Your task to perform on an android device: Clear all items from cart on ebay. Add "beats solo 3" to the cart on ebay Image 0: 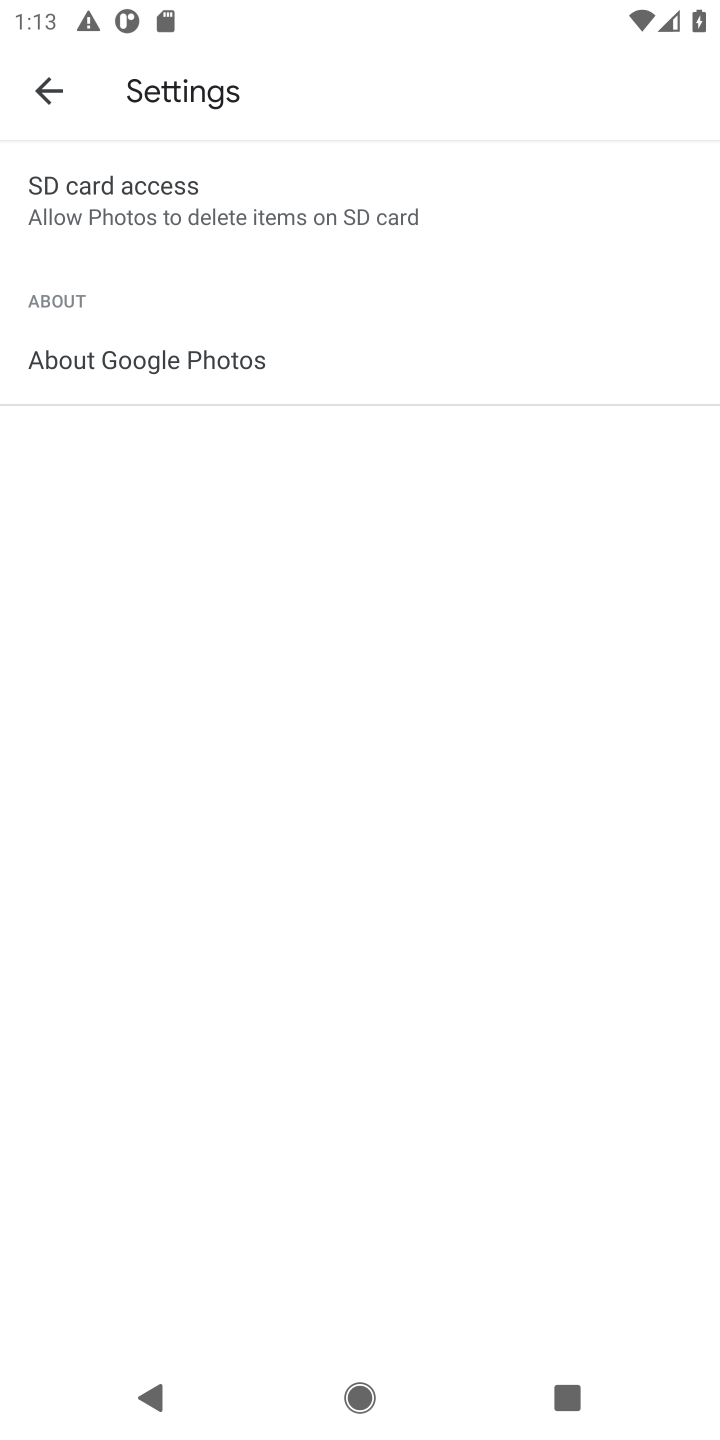
Step 0: press home button
Your task to perform on an android device: Clear all items from cart on ebay. Add "beats solo 3" to the cart on ebay Image 1: 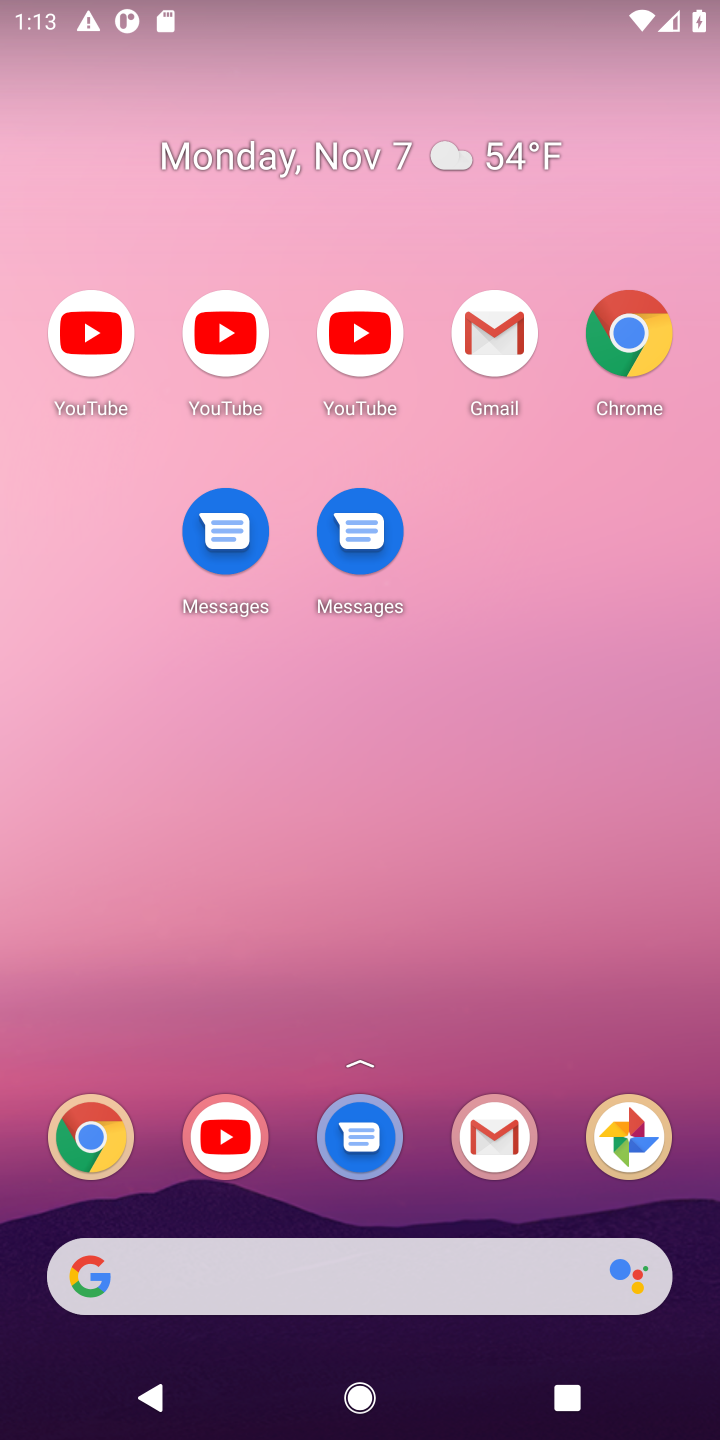
Step 1: drag from (424, 1210) to (474, 93)
Your task to perform on an android device: Clear all items from cart on ebay. Add "beats solo 3" to the cart on ebay Image 2: 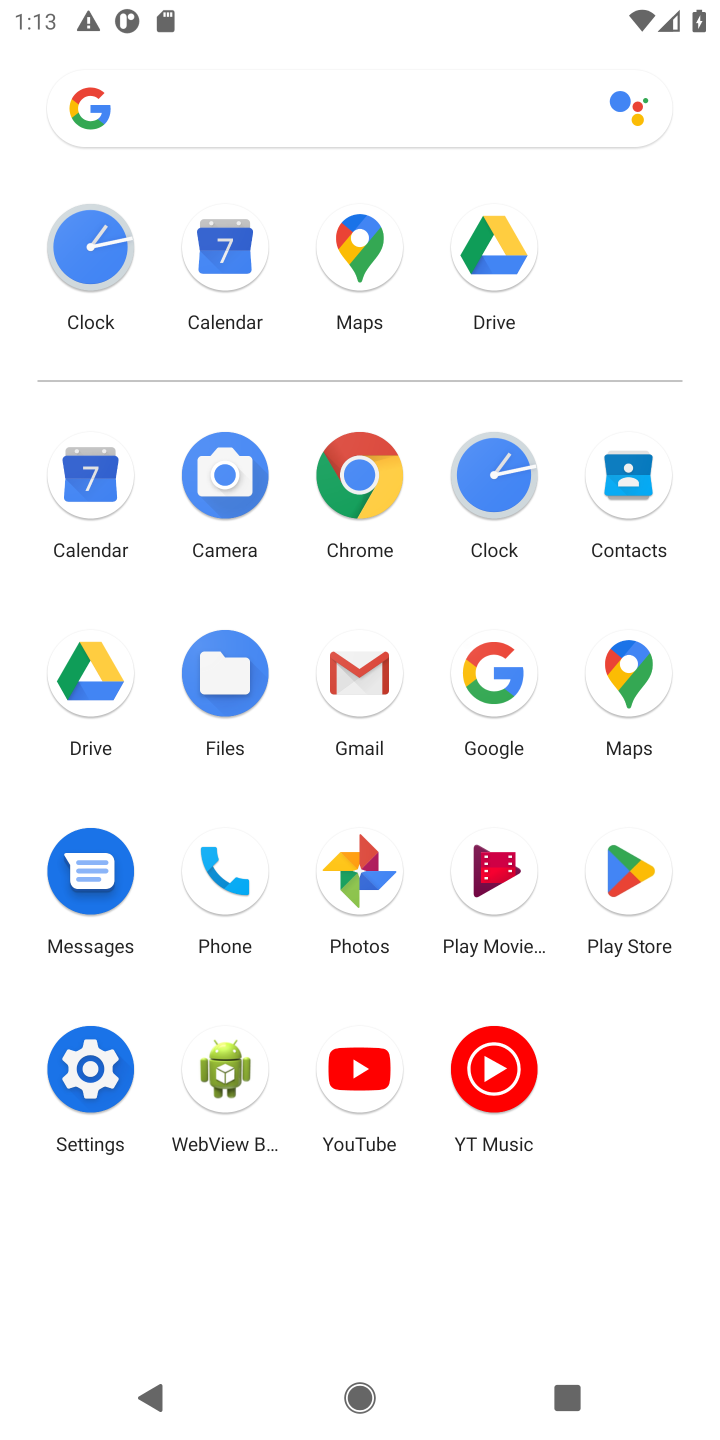
Step 2: click (368, 473)
Your task to perform on an android device: Clear all items from cart on ebay. Add "beats solo 3" to the cart on ebay Image 3: 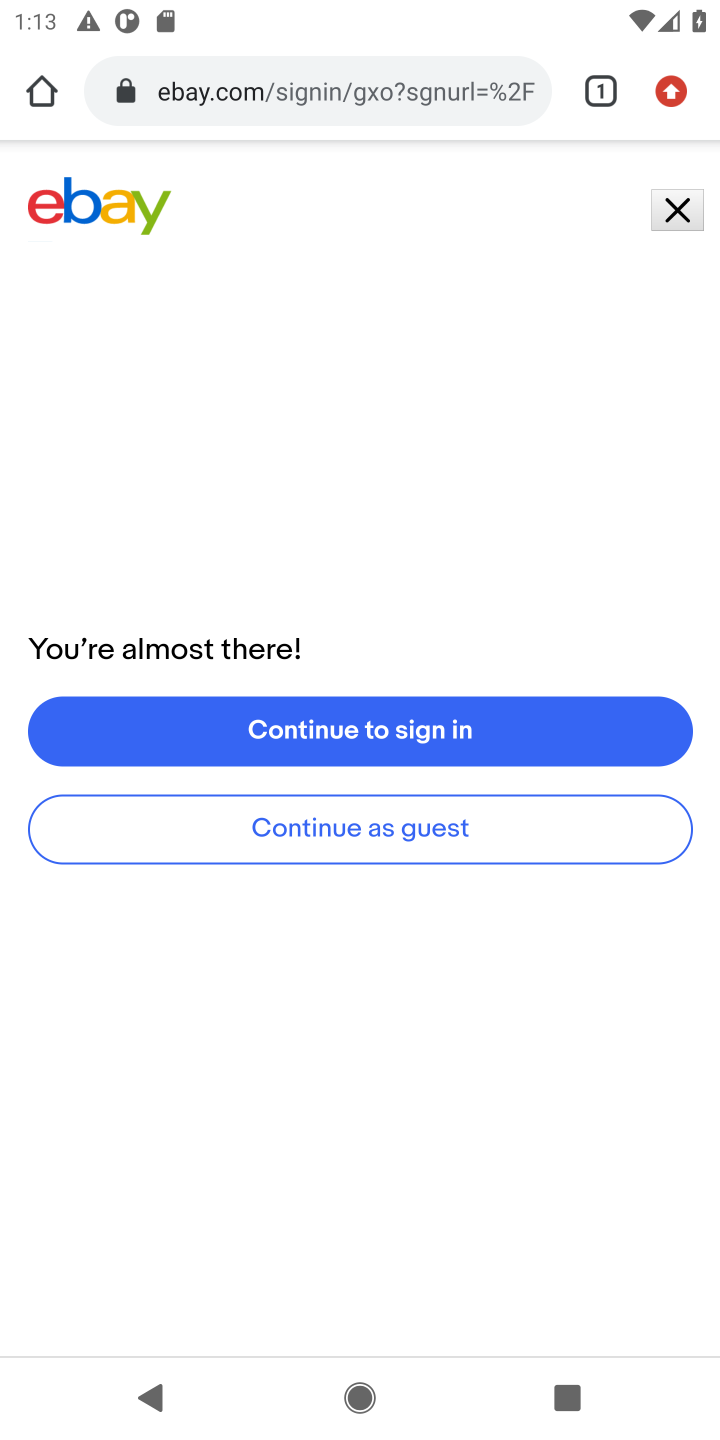
Step 3: click (356, 92)
Your task to perform on an android device: Clear all items from cart on ebay. Add "beats solo 3" to the cart on ebay Image 4: 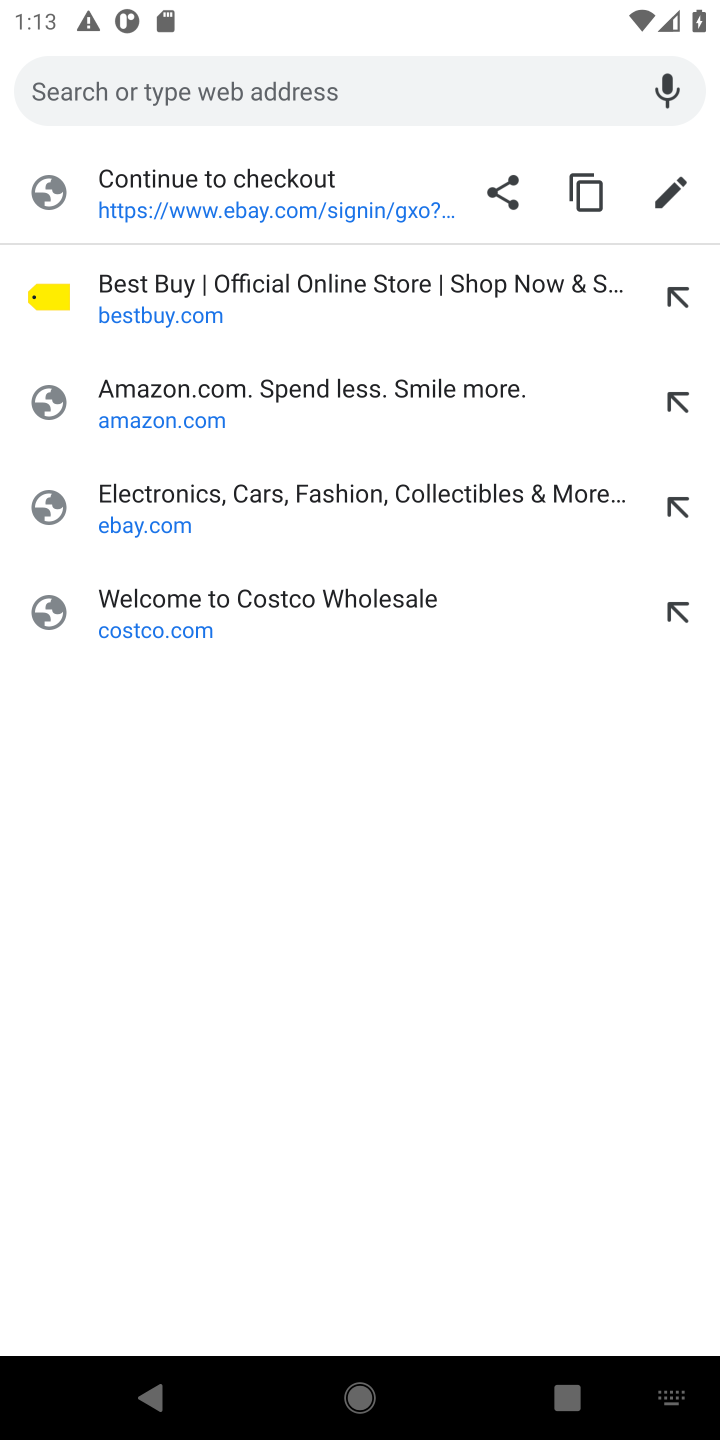
Step 4: type "ebay.com"
Your task to perform on an android device: Clear all items from cart on ebay. Add "beats solo 3" to the cart on ebay Image 5: 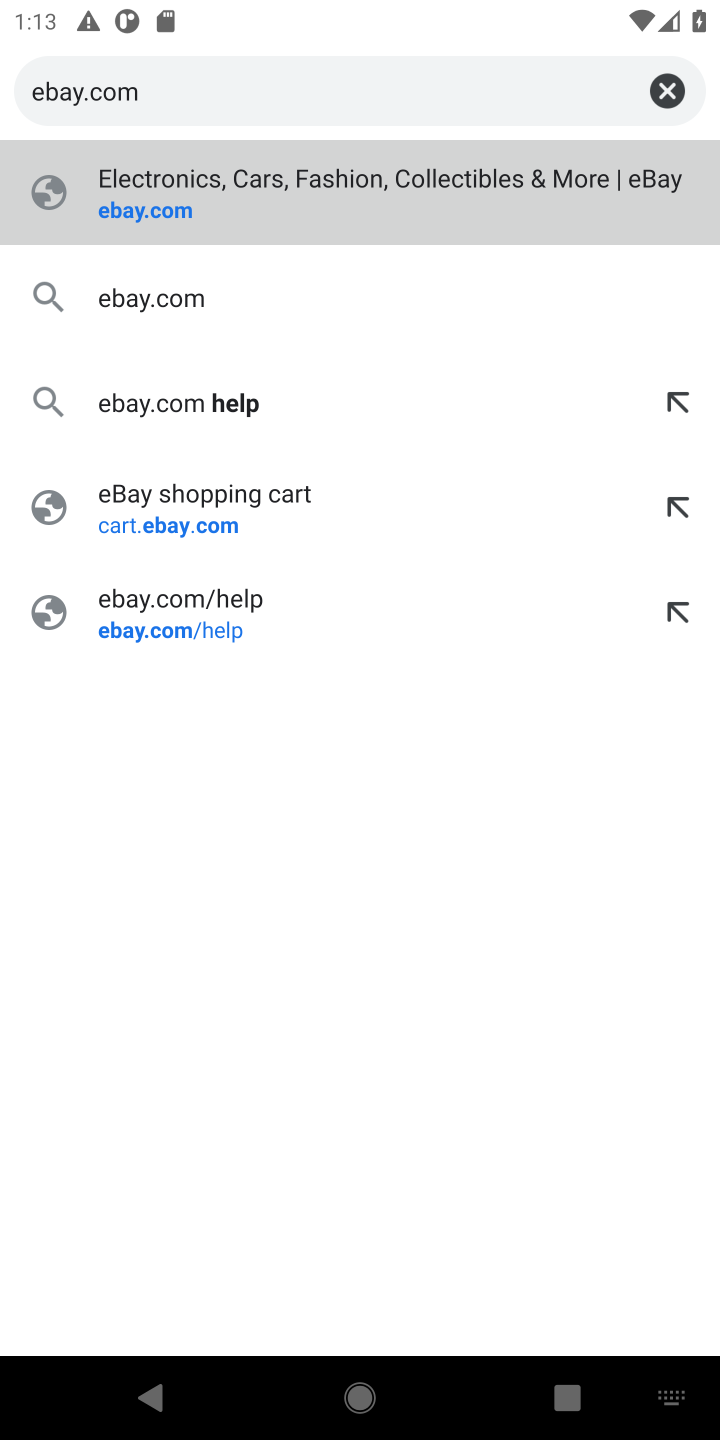
Step 5: press enter
Your task to perform on an android device: Clear all items from cart on ebay. Add "beats solo 3" to the cart on ebay Image 6: 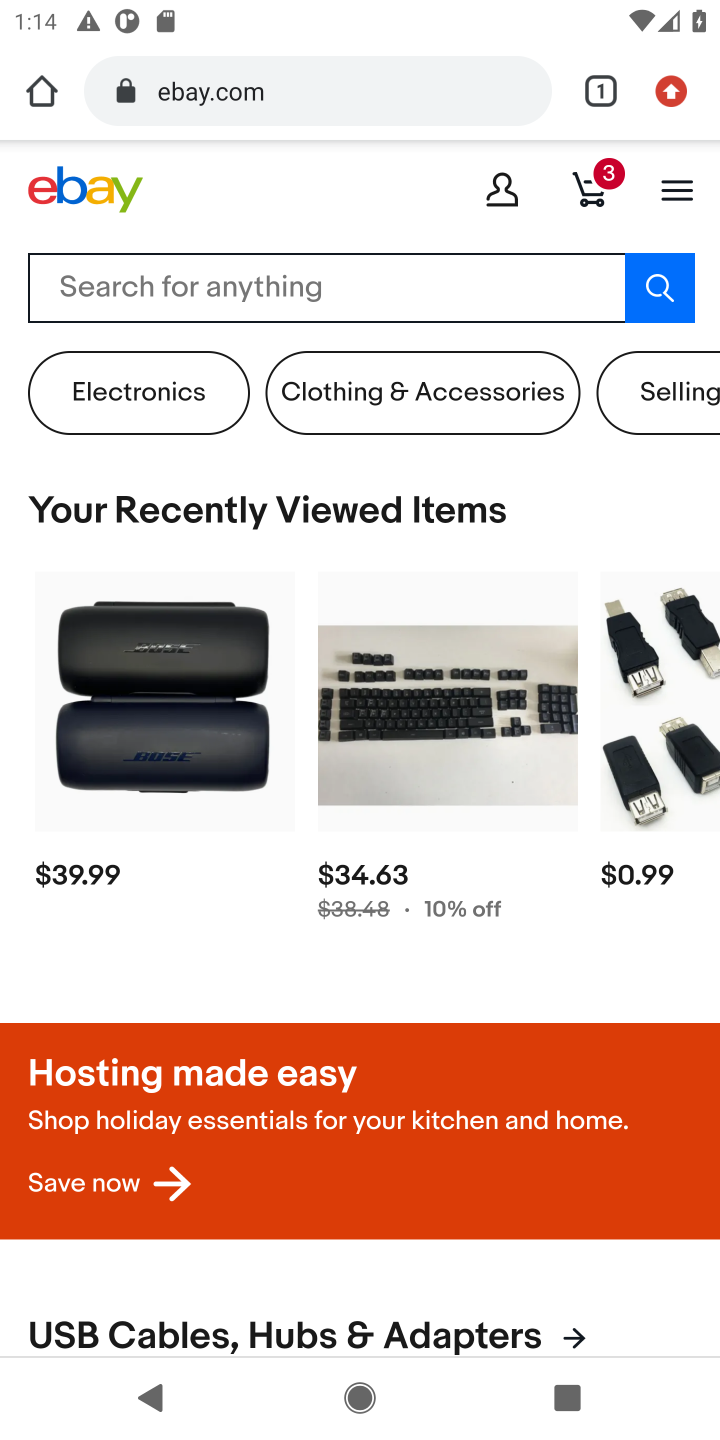
Step 6: click (583, 189)
Your task to perform on an android device: Clear all items from cart on ebay. Add "beats solo 3" to the cart on ebay Image 7: 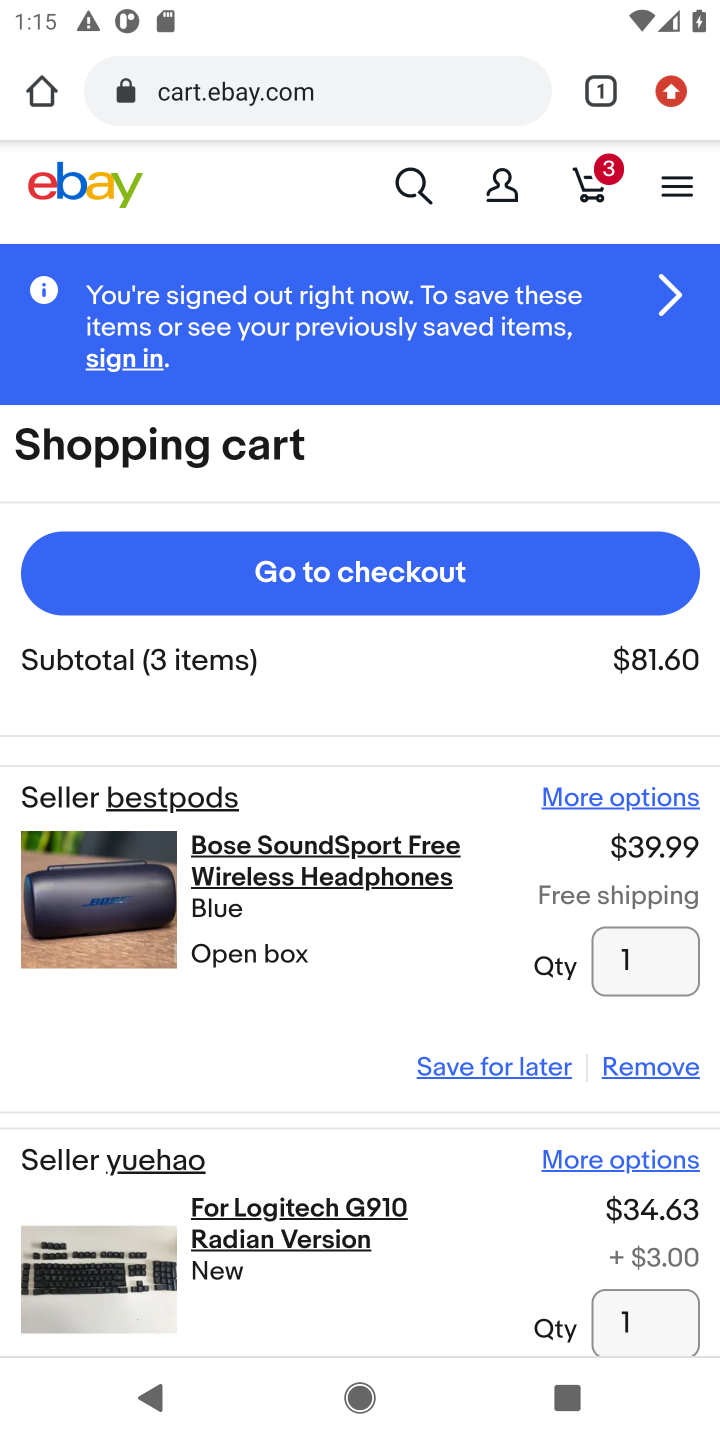
Step 7: click (636, 1061)
Your task to perform on an android device: Clear all items from cart on ebay. Add "beats solo 3" to the cart on ebay Image 8: 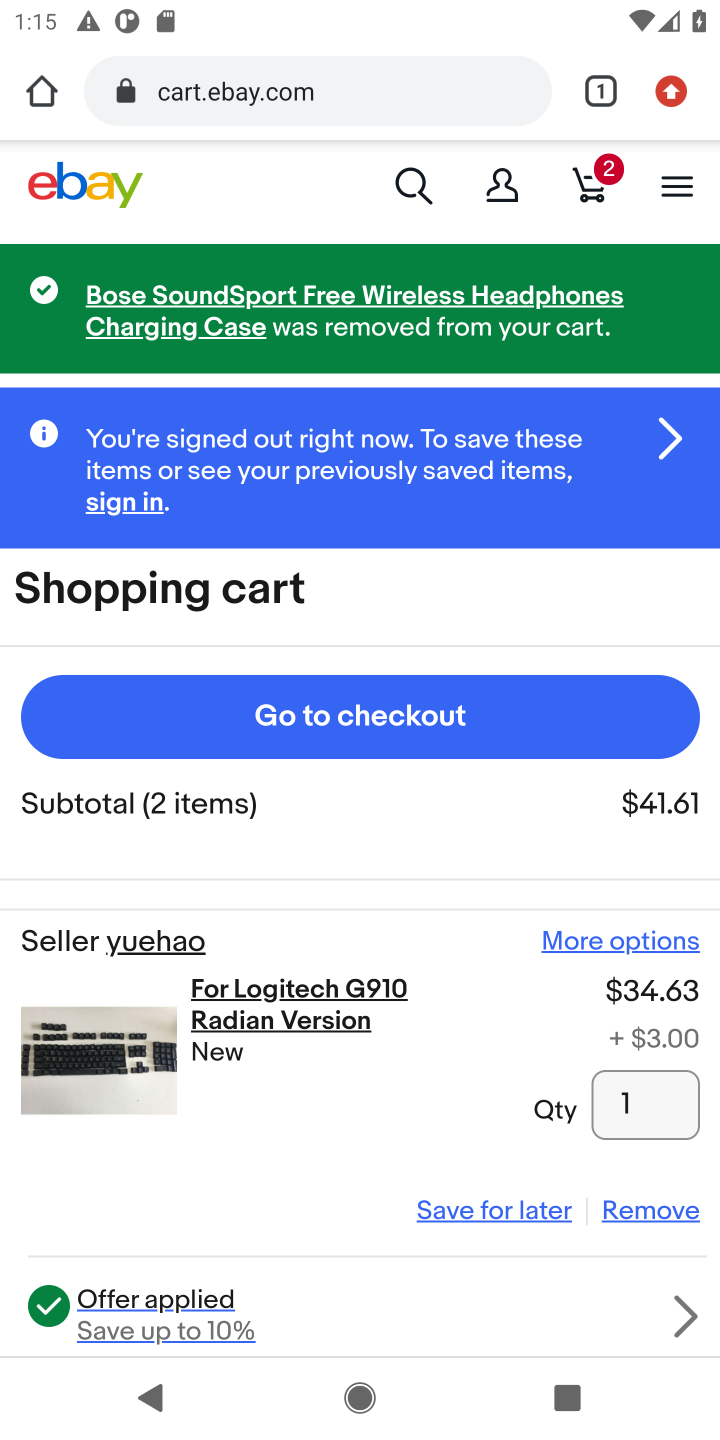
Step 8: click (660, 1200)
Your task to perform on an android device: Clear all items from cart on ebay. Add "beats solo 3" to the cart on ebay Image 9: 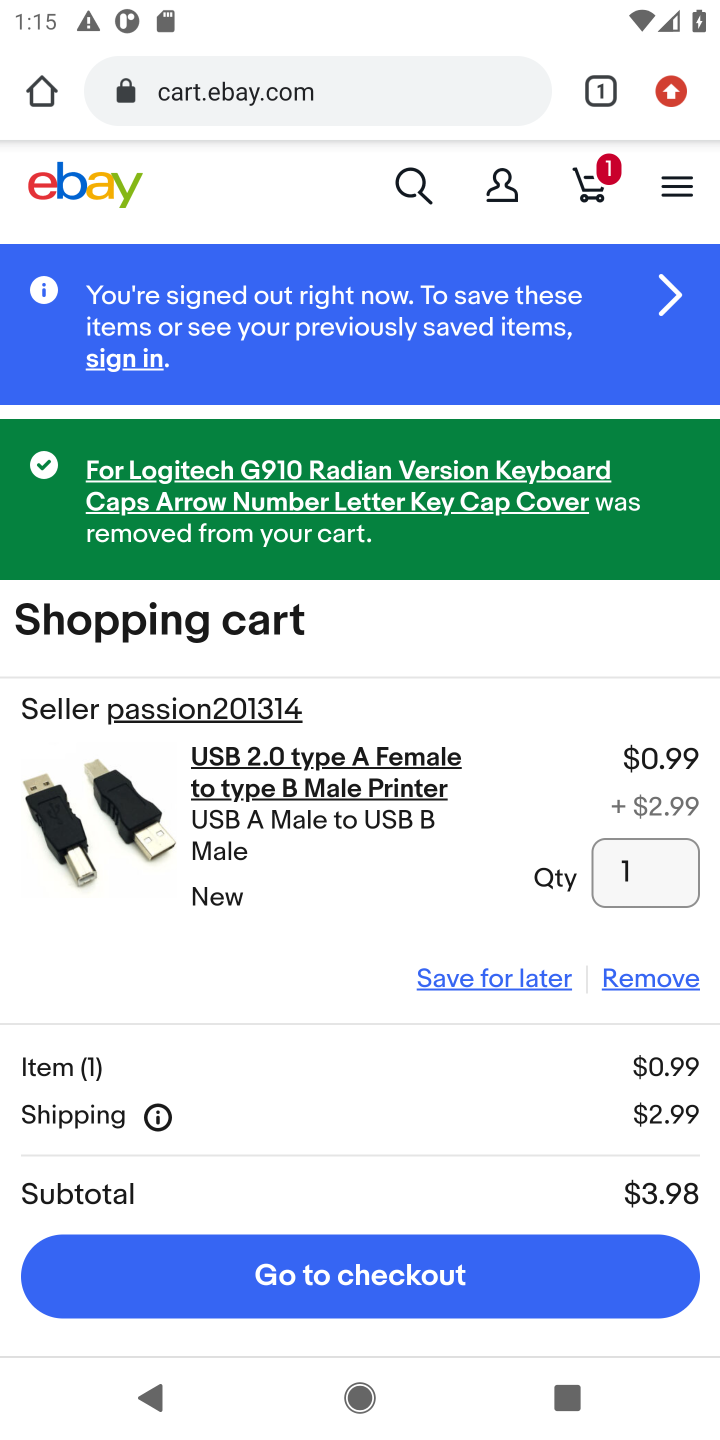
Step 9: click (623, 983)
Your task to perform on an android device: Clear all items from cart on ebay. Add "beats solo 3" to the cart on ebay Image 10: 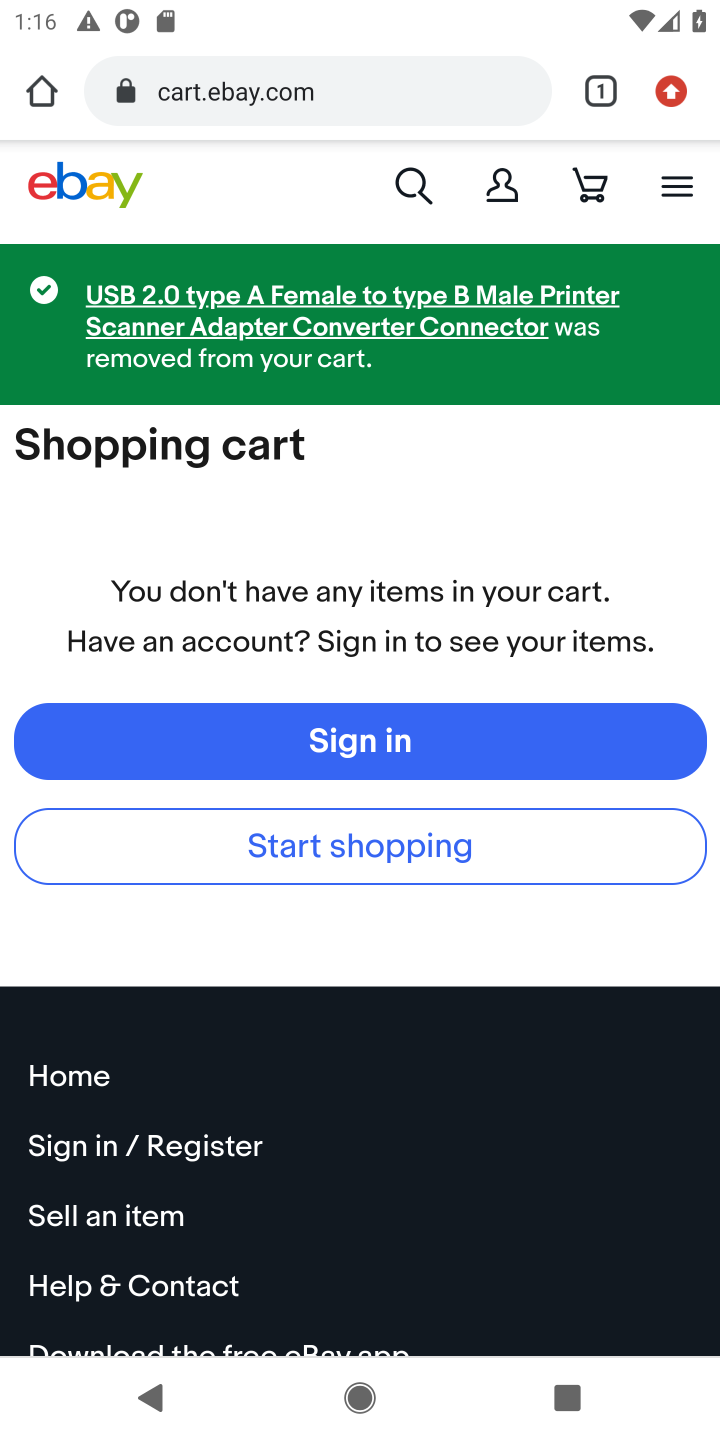
Step 10: click (403, 184)
Your task to perform on an android device: Clear all items from cart on ebay. Add "beats solo 3" to the cart on ebay Image 11: 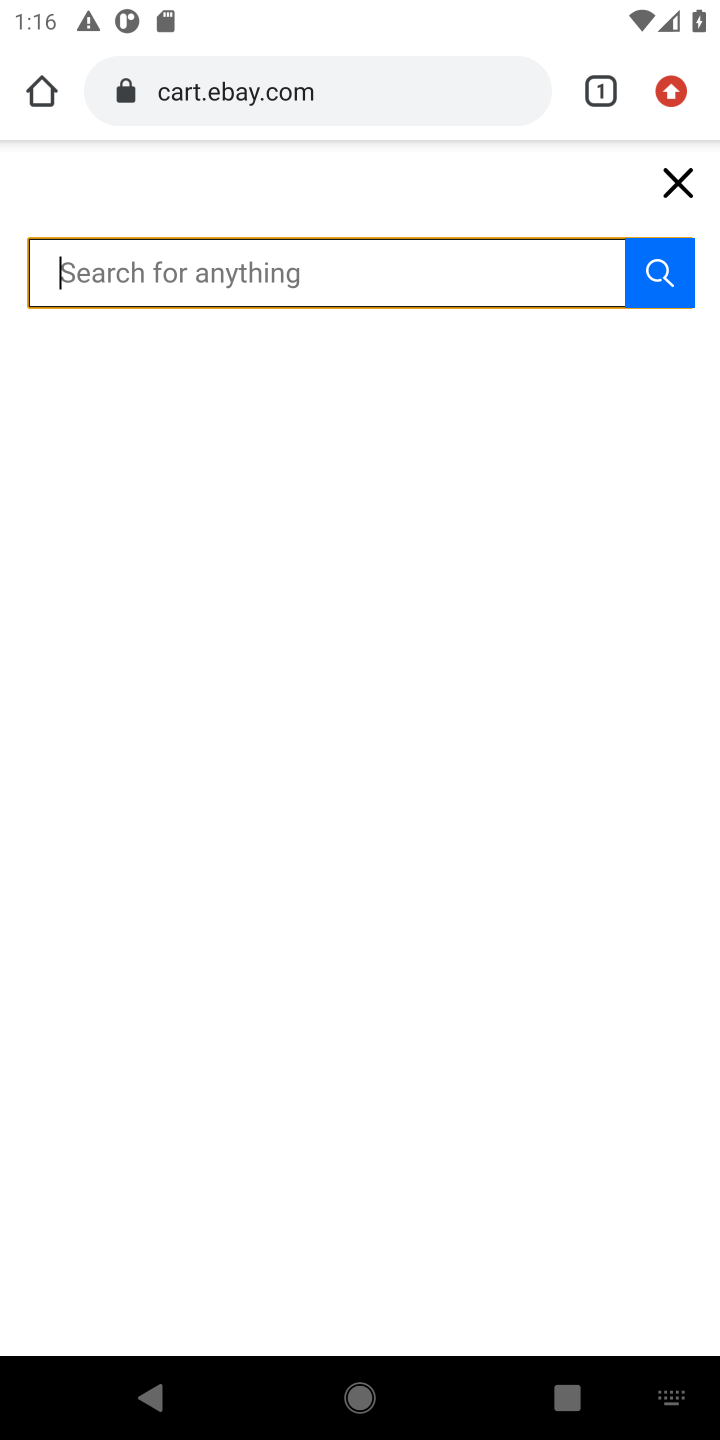
Step 11: type "beats solo 3"
Your task to perform on an android device: Clear all items from cart on ebay. Add "beats solo 3" to the cart on ebay Image 12: 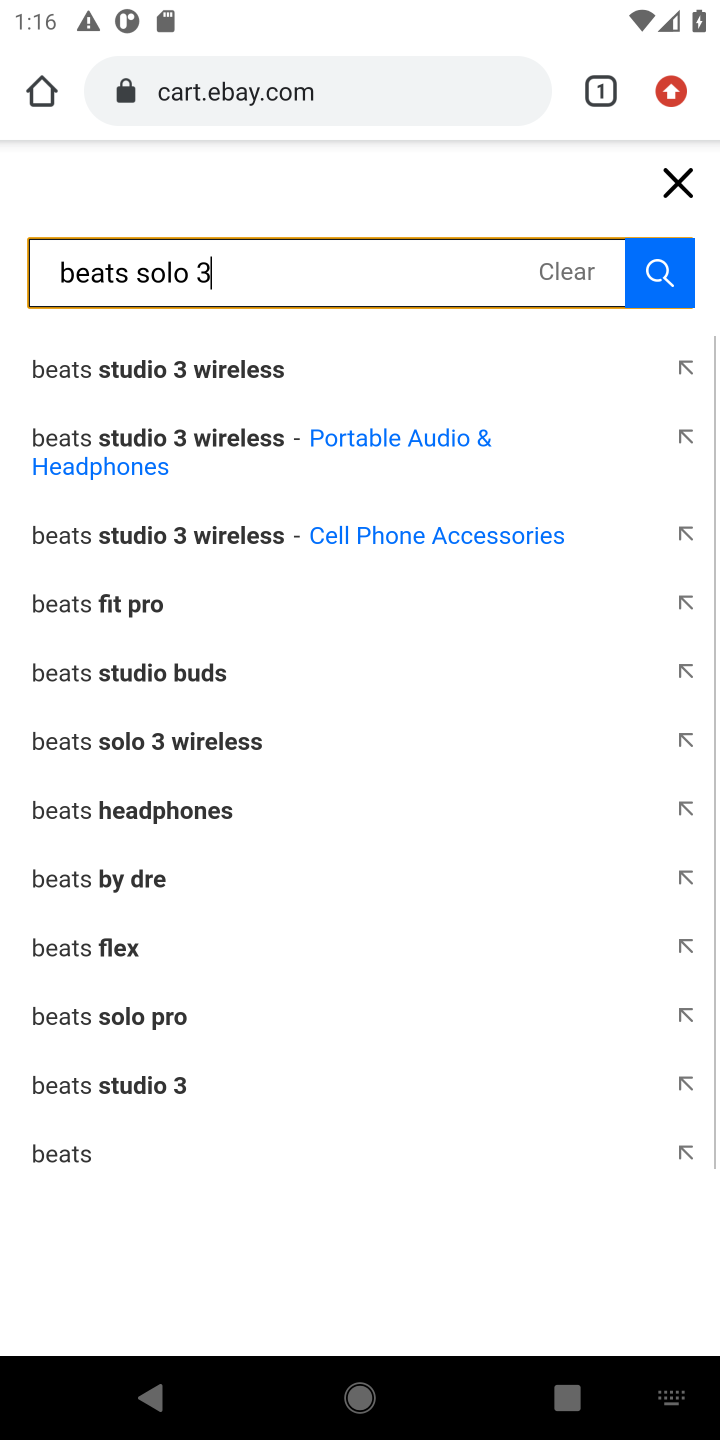
Step 12: press enter
Your task to perform on an android device: Clear all items from cart on ebay. Add "beats solo 3" to the cart on ebay Image 13: 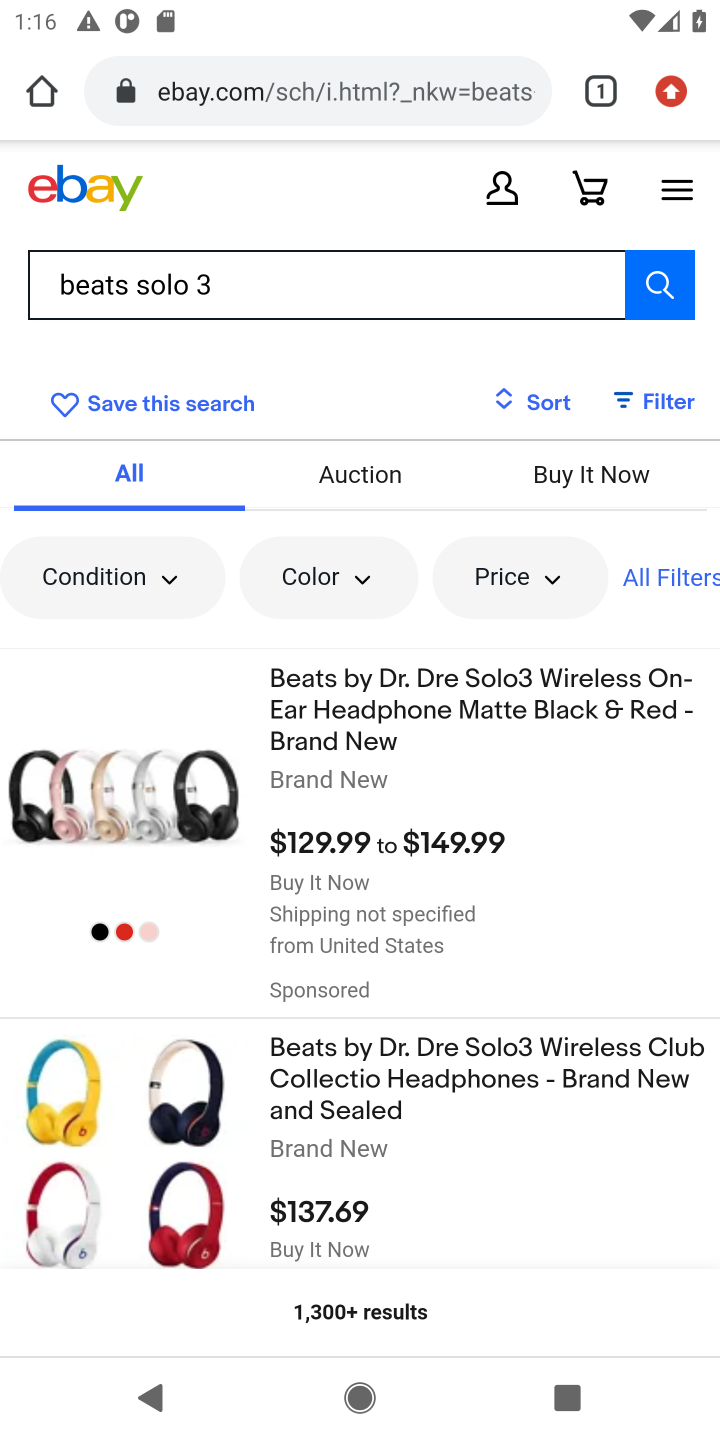
Step 13: click (619, 694)
Your task to perform on an android device: Clear all items from cart on ebay. Add "beats solo 3" to the cart on ebay Image 14: 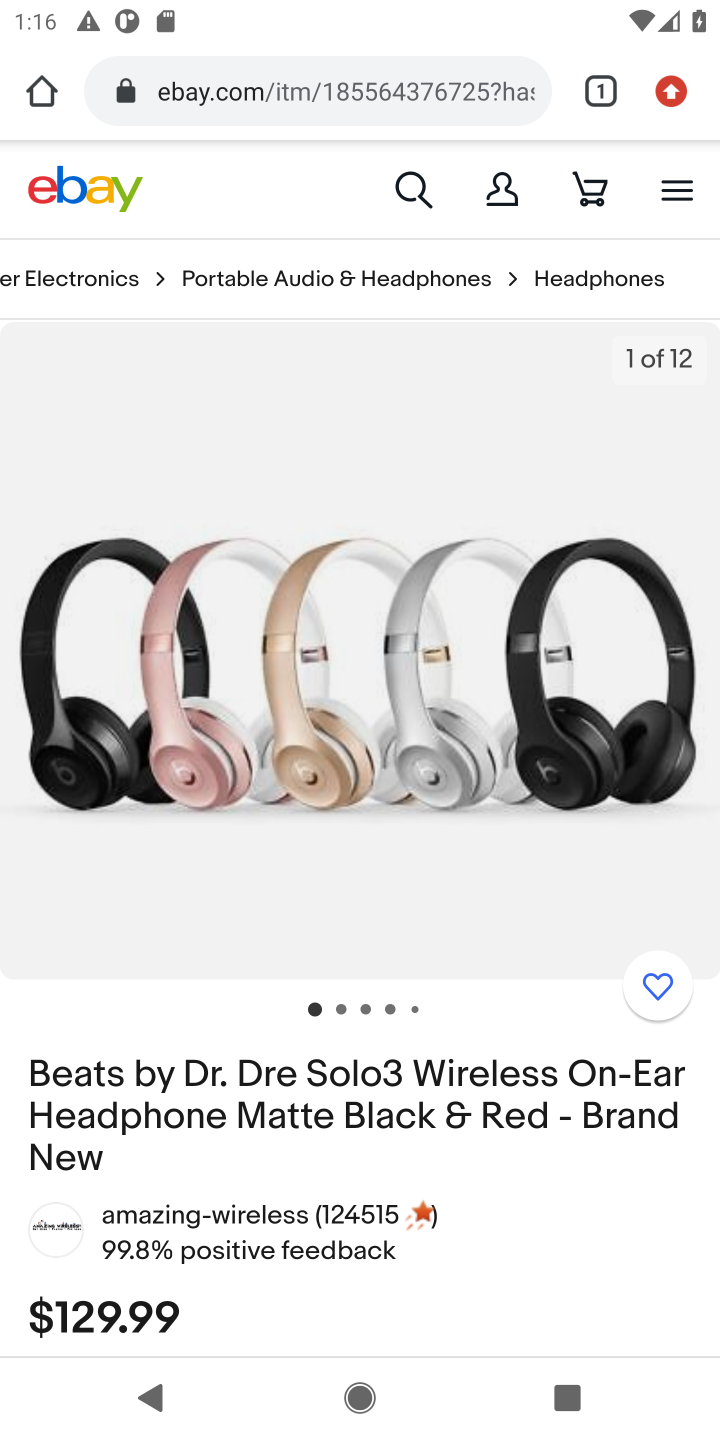
Step 14: drag from (507, 1153) to (472, 317)
Your task to perform on an android device: Clear all items from cart on ebay. Add "beats solo 3" to the cart on ebay Image 15: 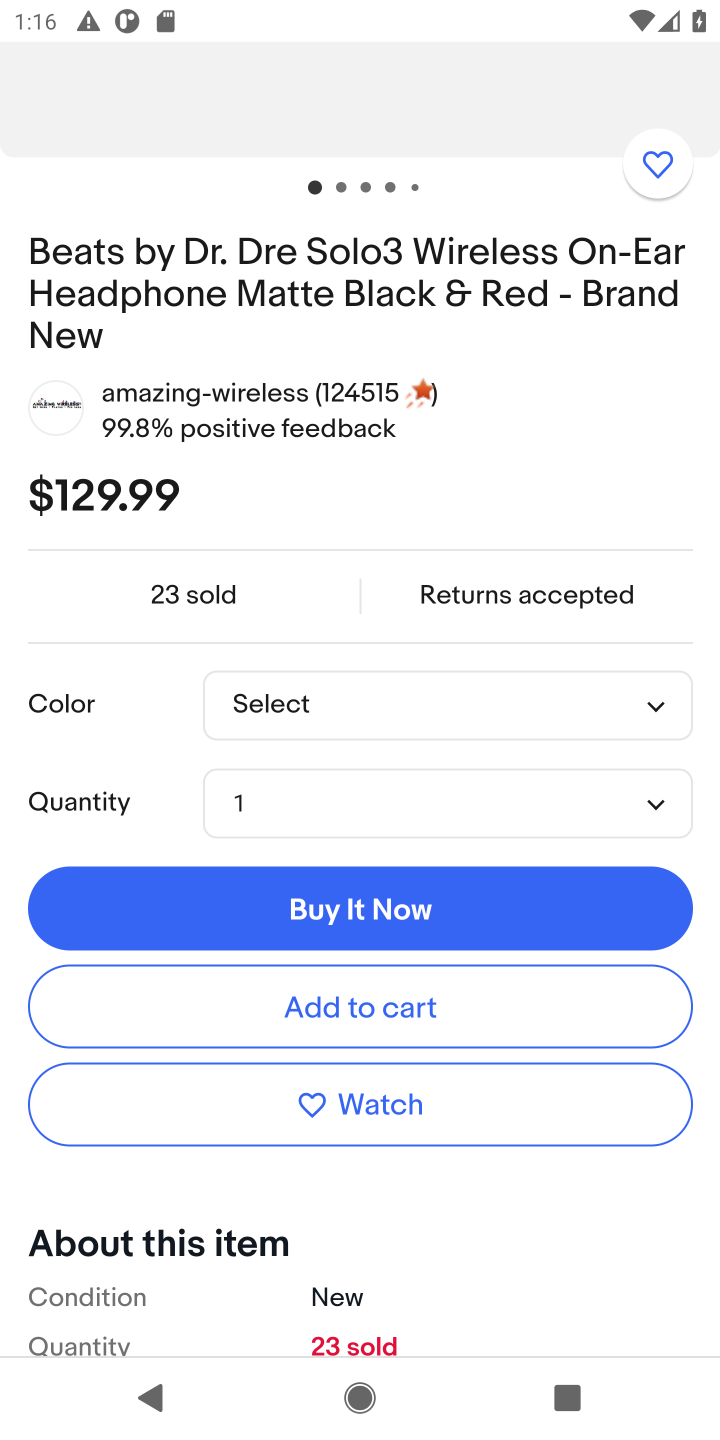
Step 15: click (573, 1001)
Your task to perform on an android device: Clear all items from cart on ebay. Add "beats solo 3" to the cart on ebay Image 16: 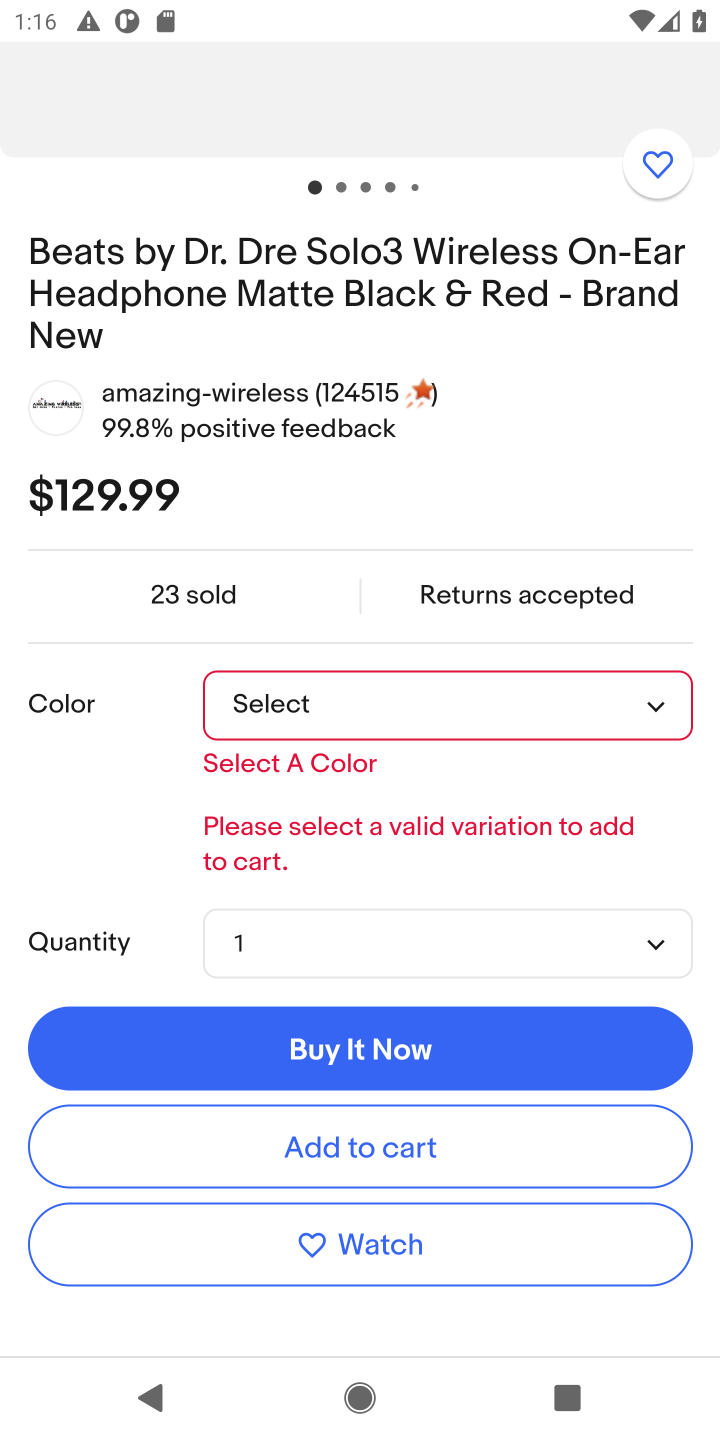
Step 16: click (478, 690)
Your task to perform on an android device: Clear all items from cart on ebay. Add "beats solo 3" to the cart on ebay Image 17: 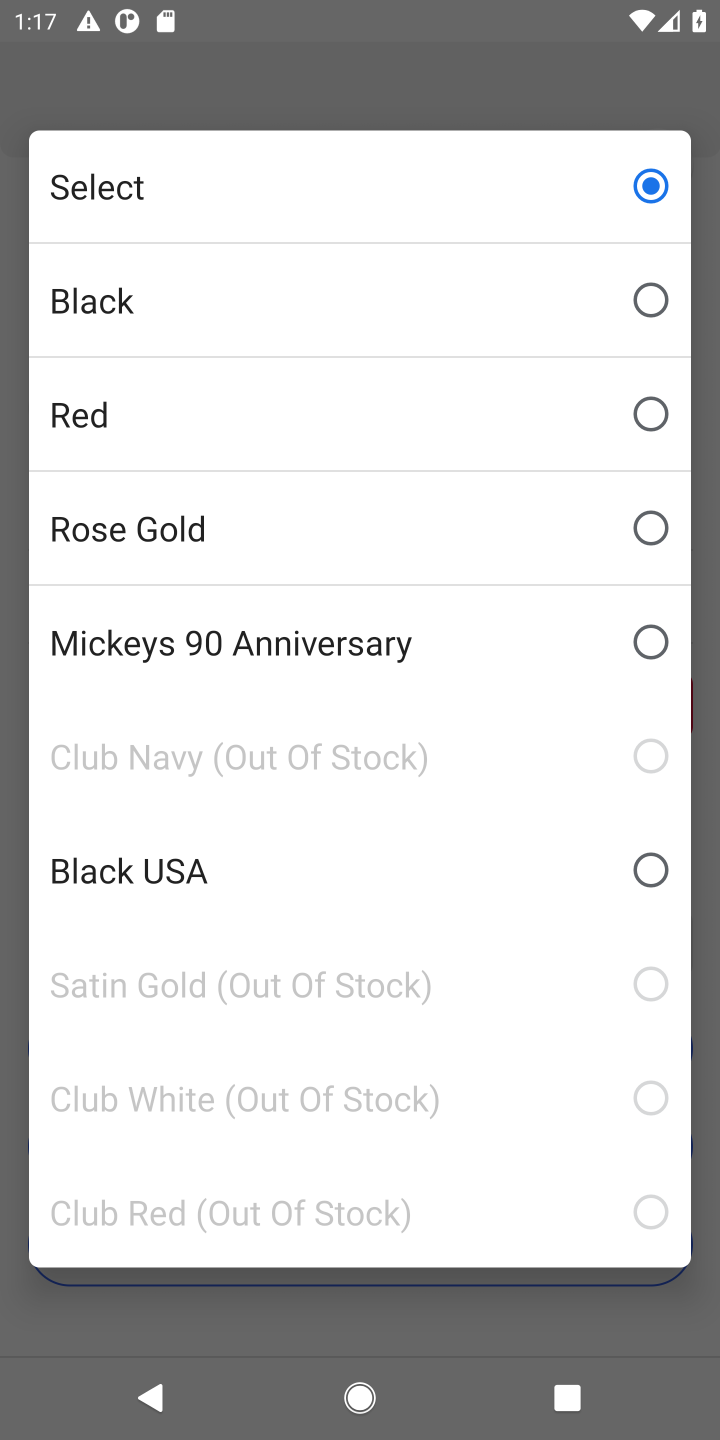
Step 17: click (337, 301)
Your task to perform on an android device: Clear all items from cart on ebay. Add "beats solo 3" to the cart on ebay Image 18: 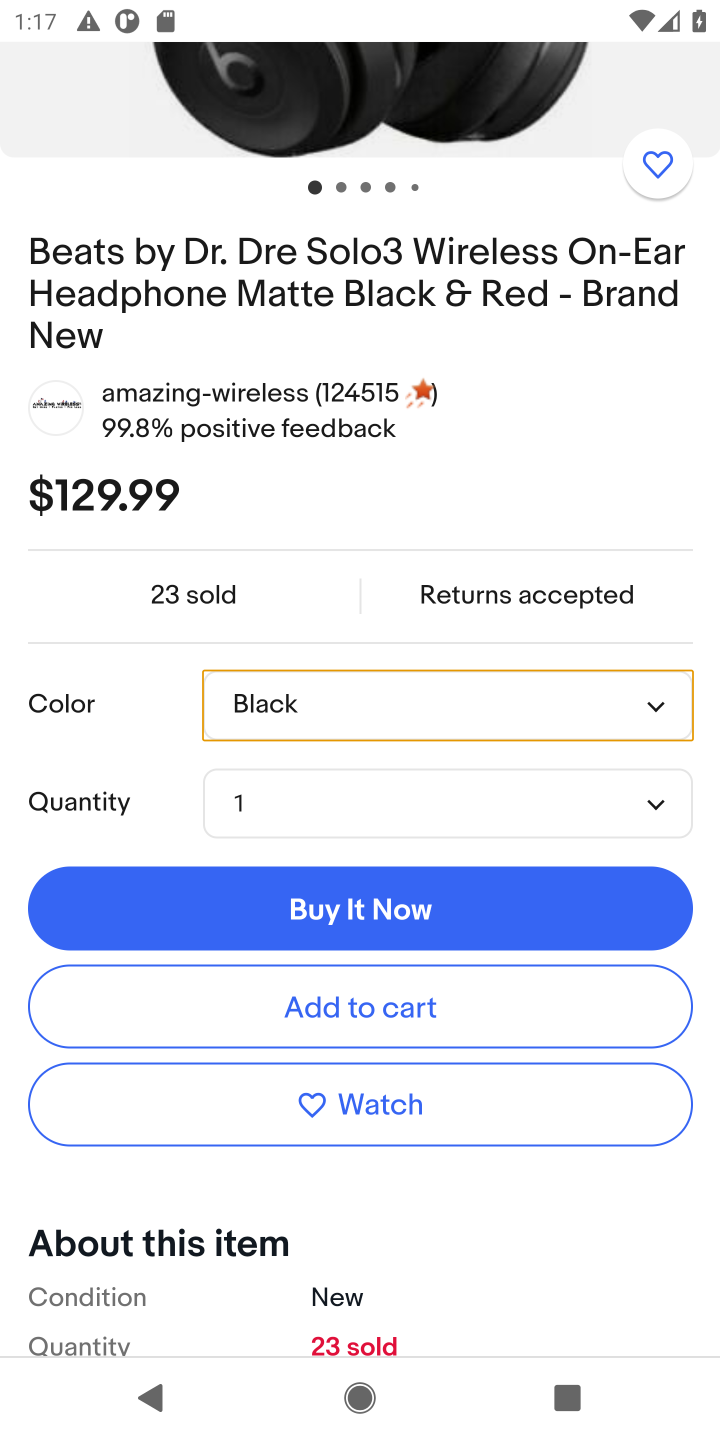
Step 18: click (527, 1008)
Your task to perform on an android device: Clear all items from cart on ebay. Add "beats solo 3" to the cart on ebay Image 19: 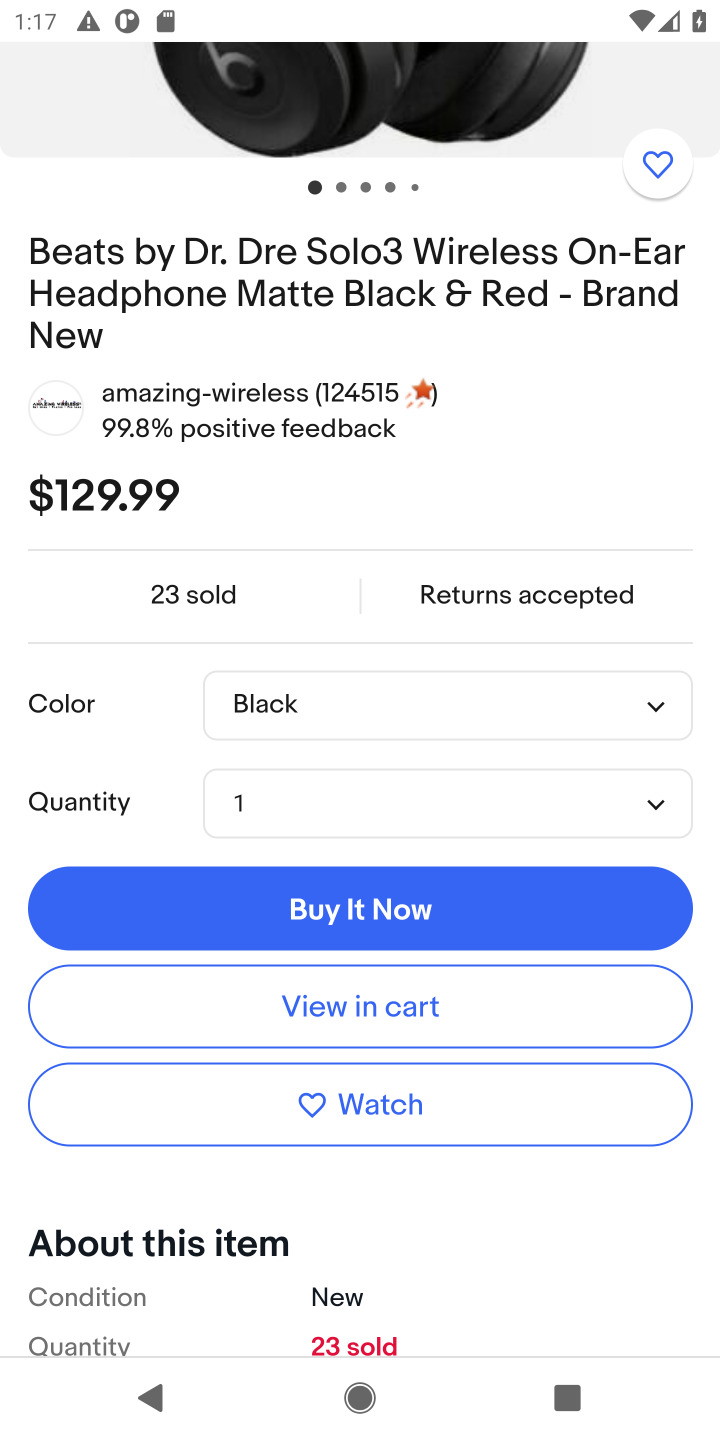
Step 19: task complete